Your task to perform on an android device: clear all cookies in the chrome app Image 0: 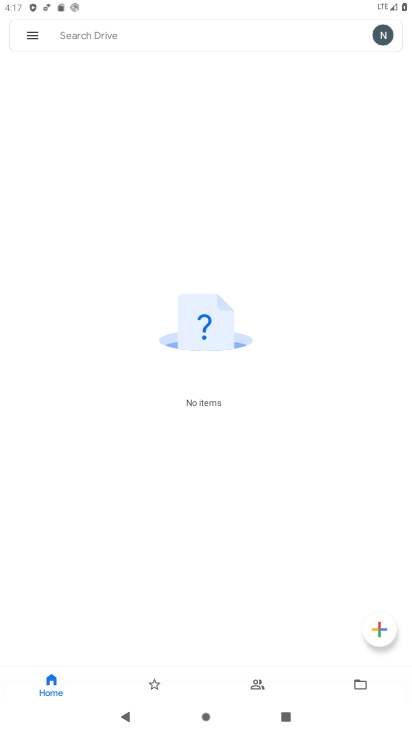
Step 0: press home button
Your task to perform on an android device: clear all cookies in the chrome app Image 1: 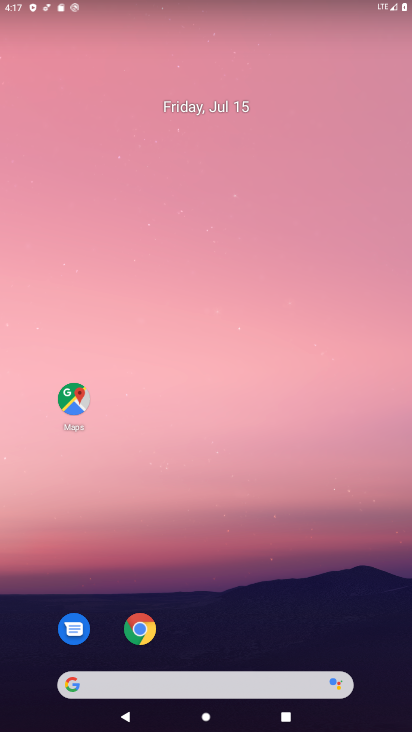
Step 1: click (143, 634)
Your task to perform on an android device: clear all cookies in the chrome app Image 2: 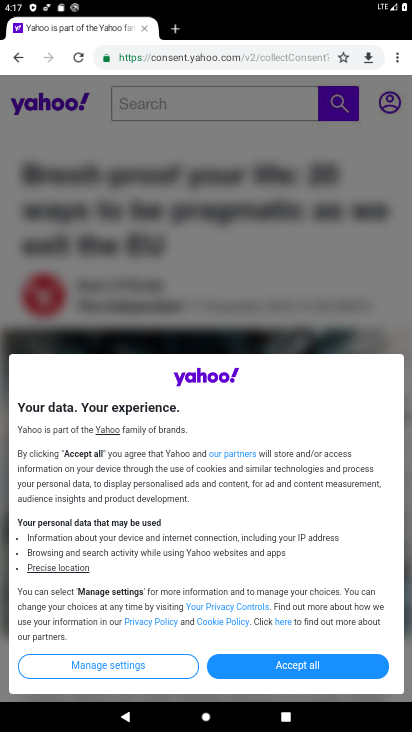
Step 2: click (397, 58)
Your task to perform on an android device: clear all cookies in the chrome app Image 3: 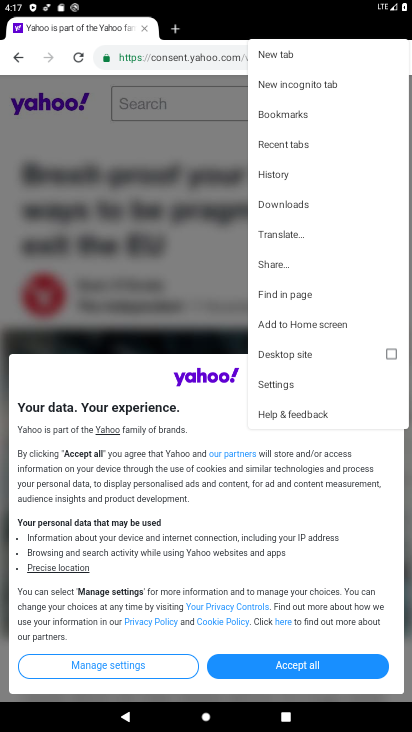
Step 3: click (280, 167)
Your task to perform on an android device: clear all cookies in the chrome app Image 4: 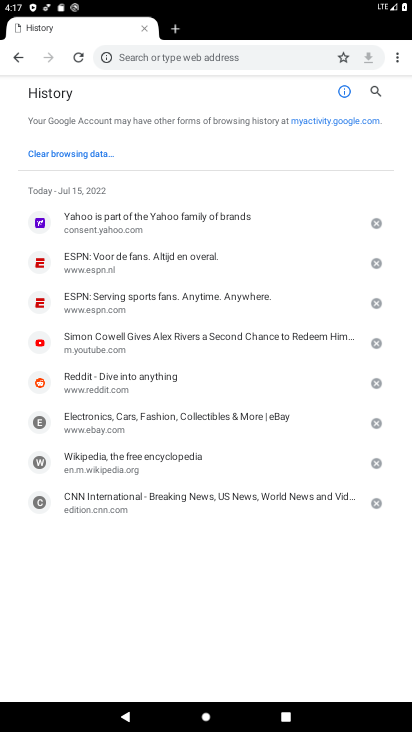
Step 4: click (89, 155)
Your task to perform on an android device: clear all cookies in the chrome app Image 5: 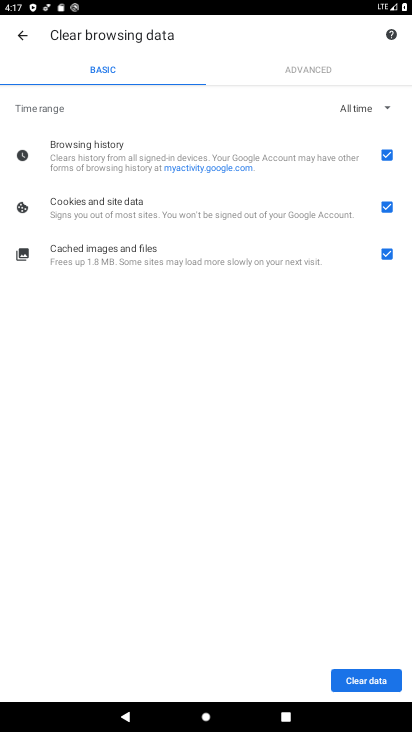
Step 5: click (391, 162)
Your task to perform on an android device: clear all cookies in the chrome app Image 6: 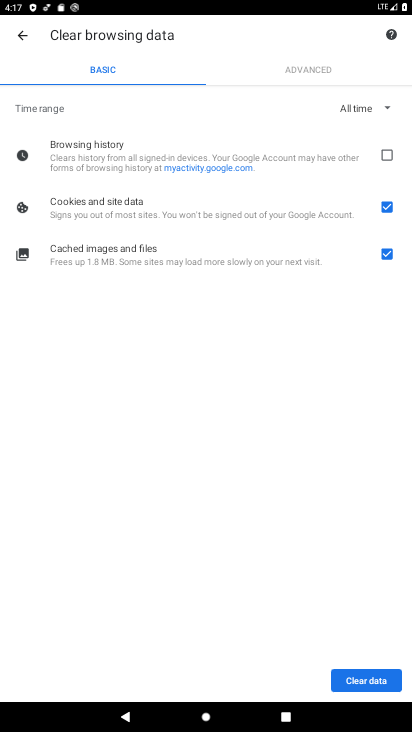
Step 6: click (381, 264)
Your task to perform on an android device: clear all cookies in the chrome app Image 7: 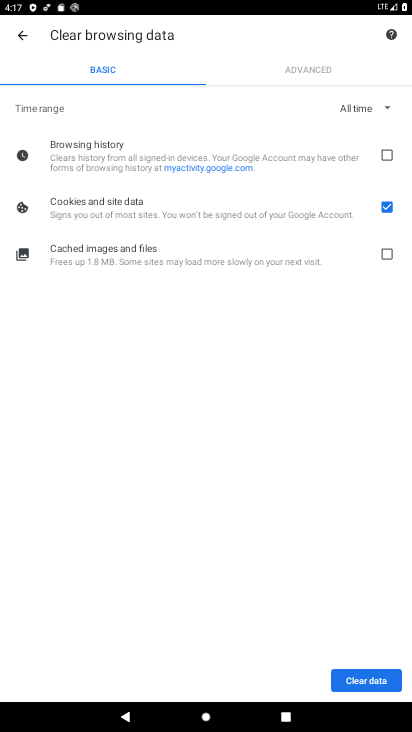
Step 7: click (353, 677)
Your task to perform on an android device: clear all cookies in the chrome app Image 8: 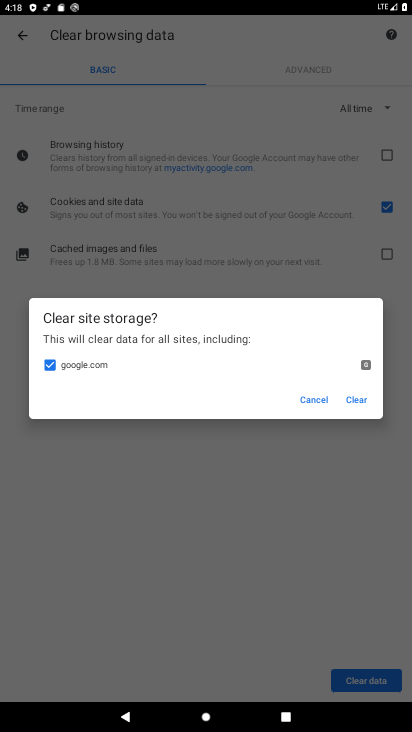
Step 8: click (352, 399)
Your task to perform on an android device: clear all cookies in the chrome app Image 9: 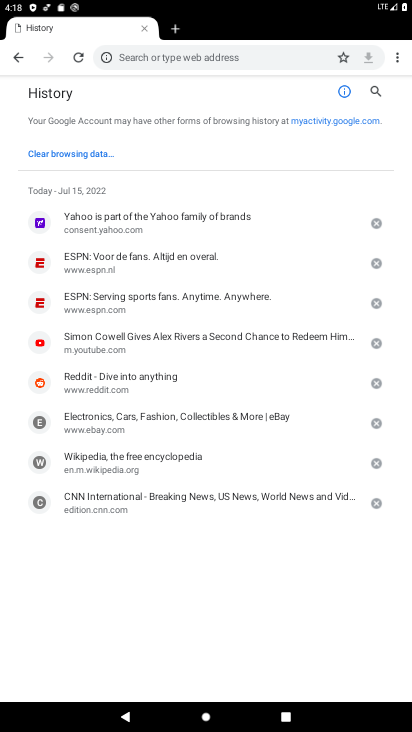
Step 9: task complete